Your task to perform on an android device: Open maps Image 0: 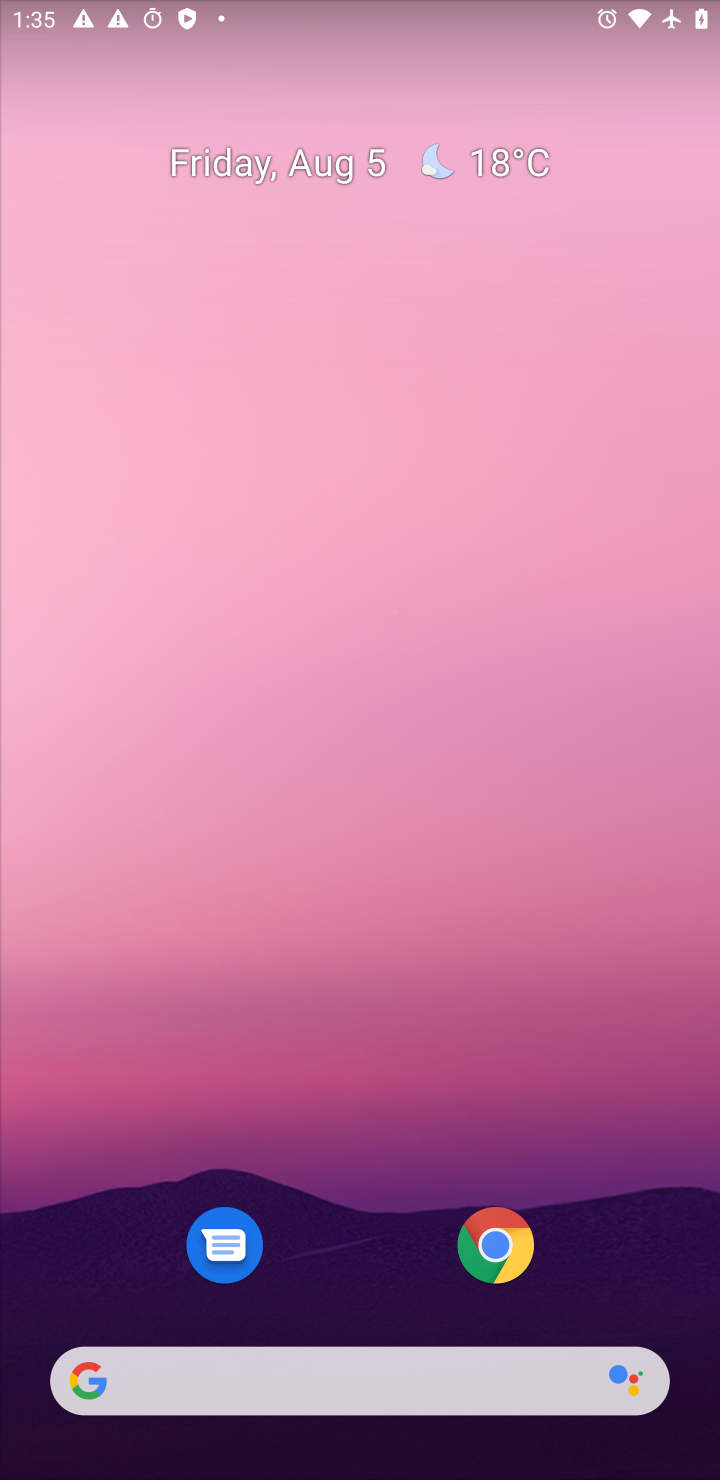
Step 0: press home button
Your task to perform on an android device: Open maps Image 1: 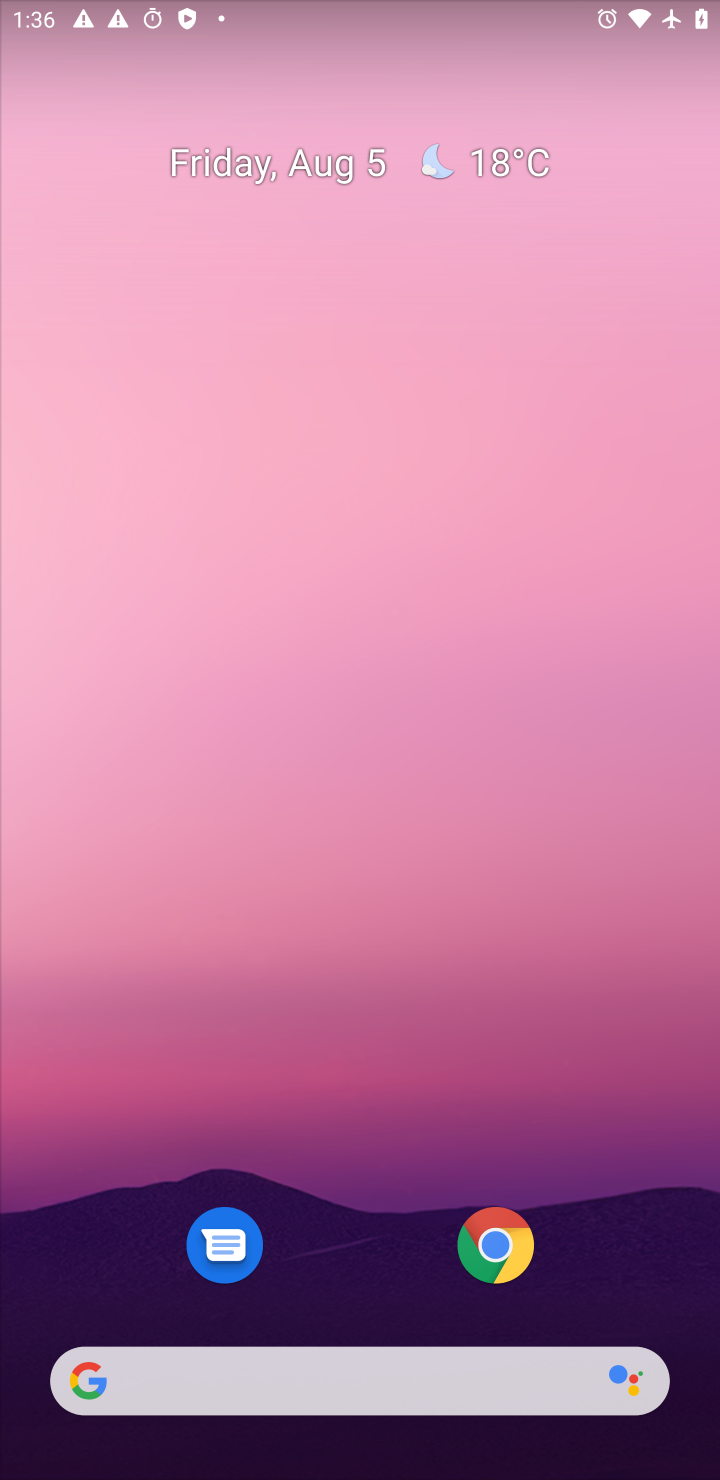
Step 1: drag from (362, 1247) to (524, 404)
Your task to perform on an android device: Open maps Image 2: 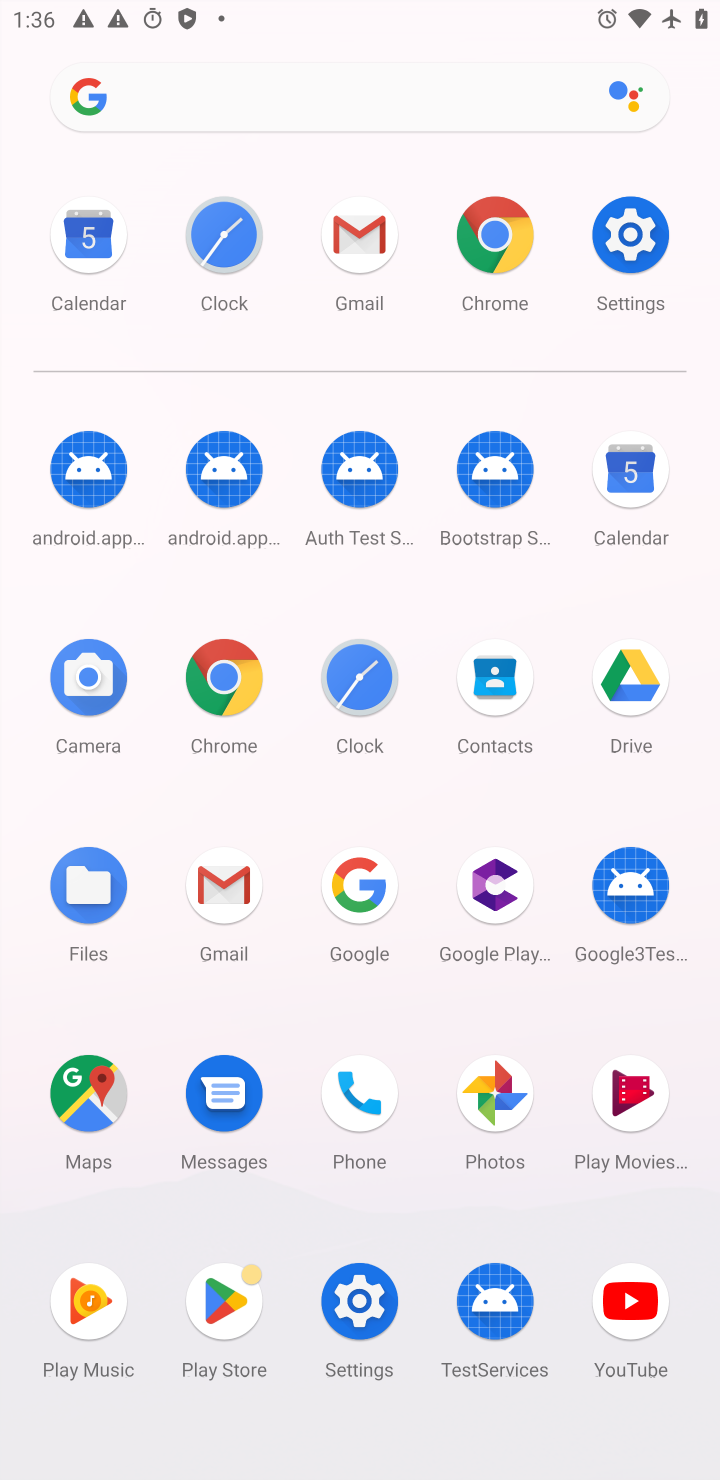
Step 2: click (79, 1097)
Your task to perform on an android device: Open maps Image 3: 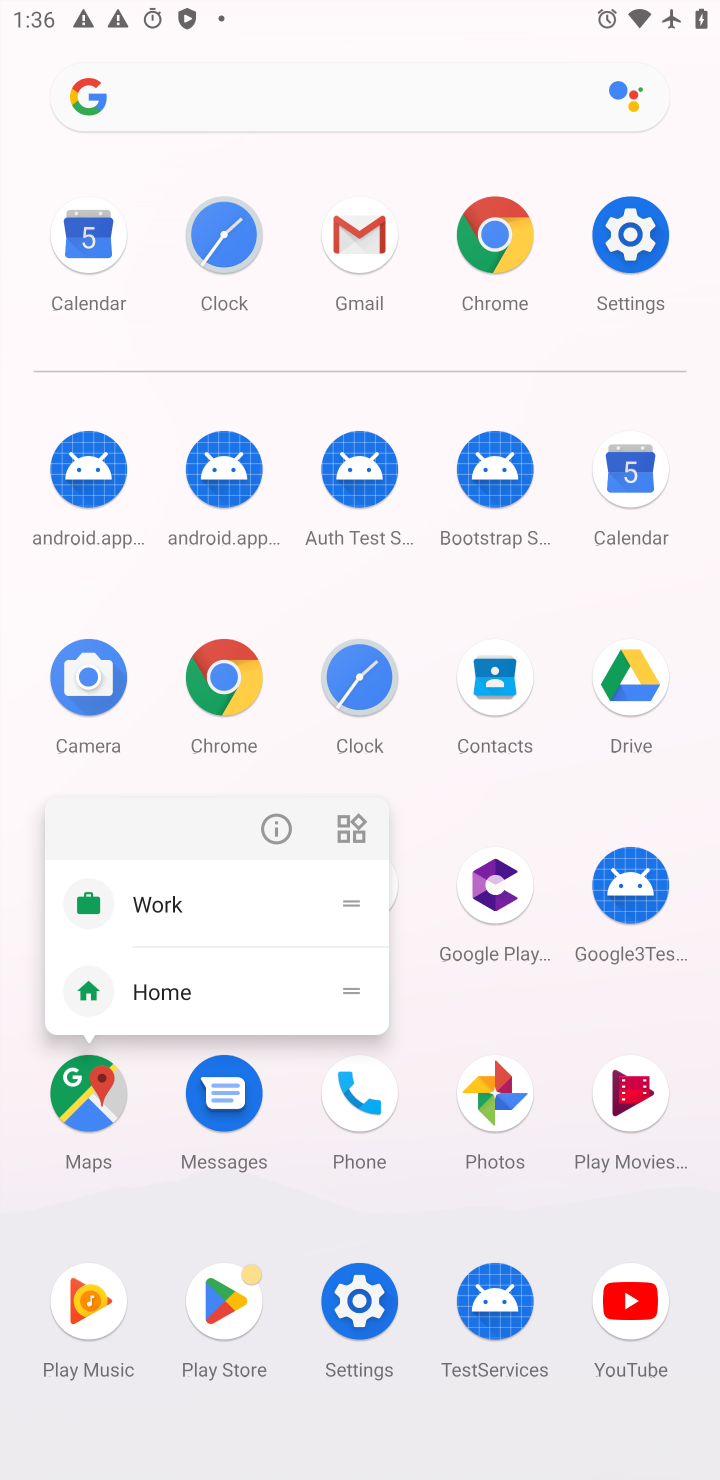
Step 3: click (74, 1082)
Your task to perform on an android device: Open maps Image 4: 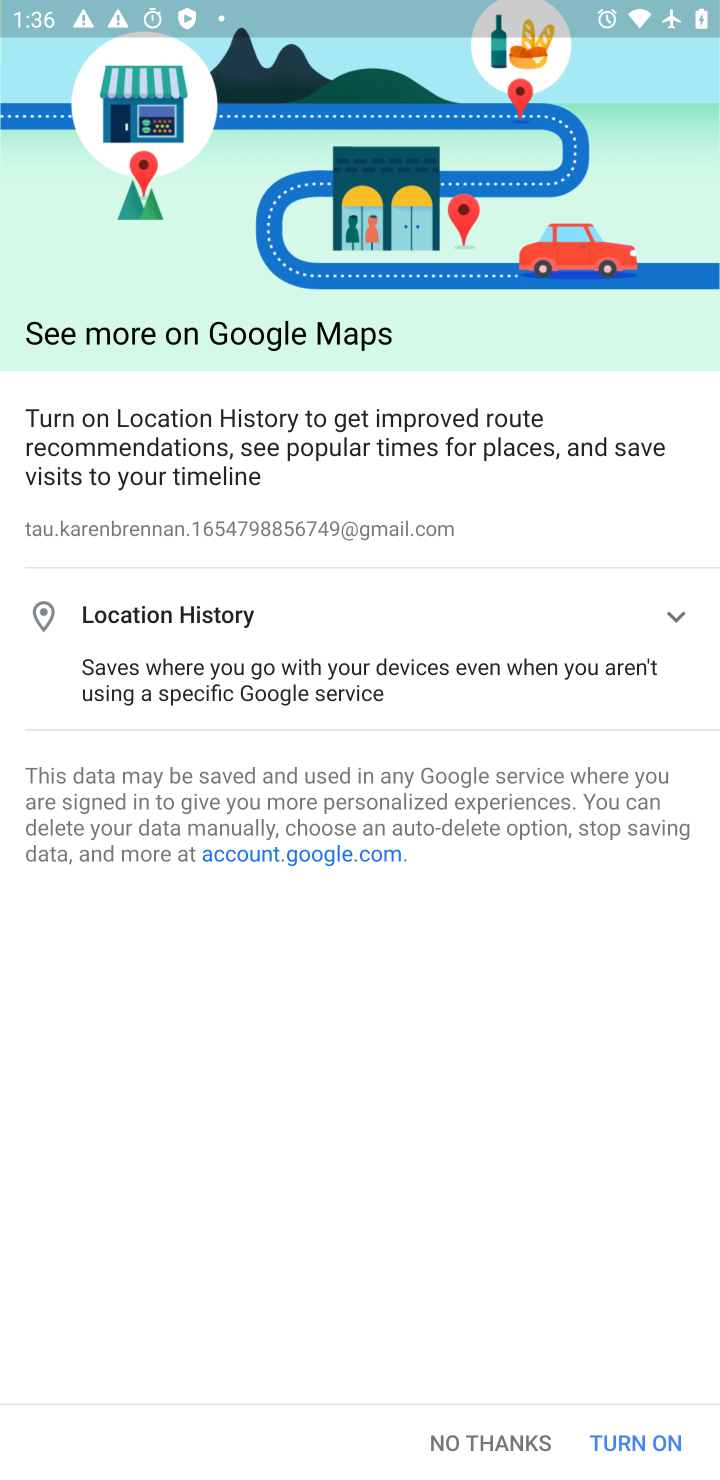
Step 4: click (621, 1446)
Your task to perform on an android device: Open maps Image 5: 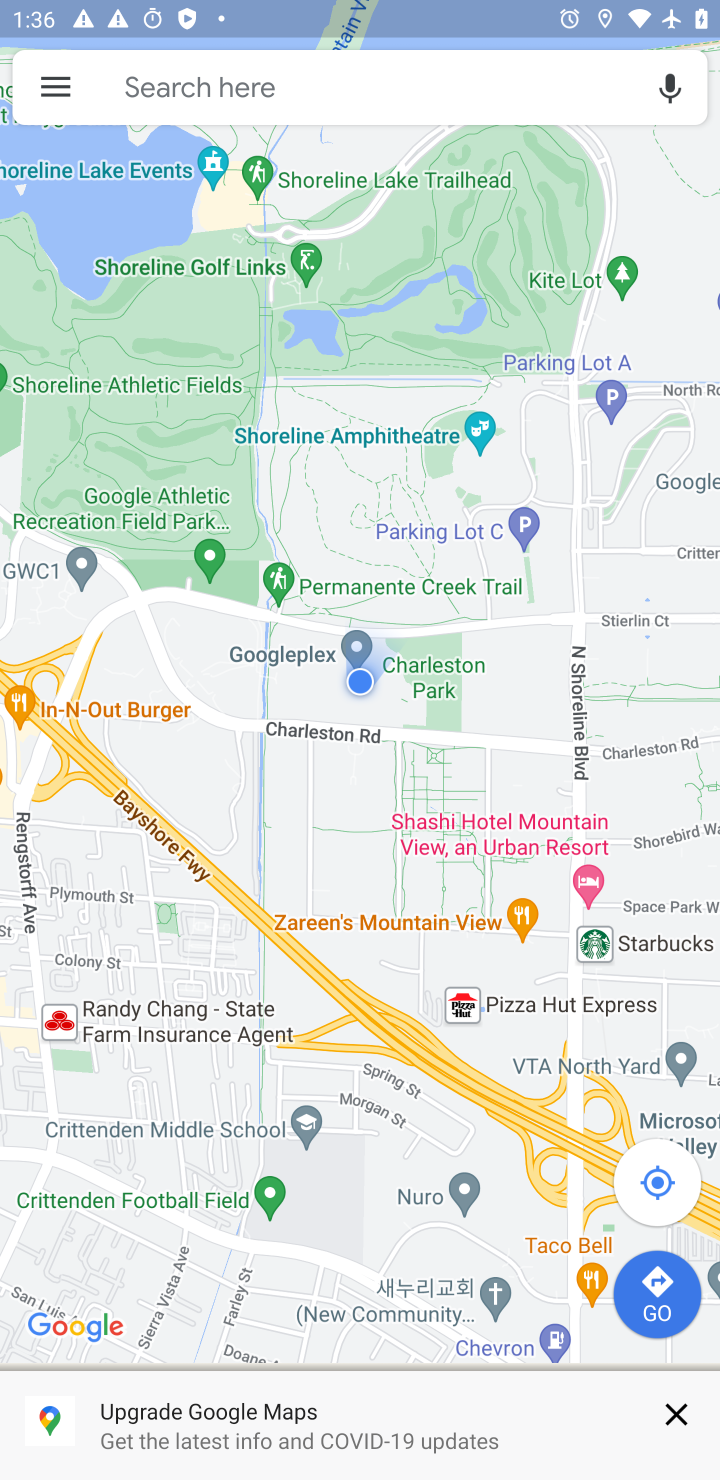
Step 5: task complete